Your task to perform on an android device: turn off wifi Image 0: 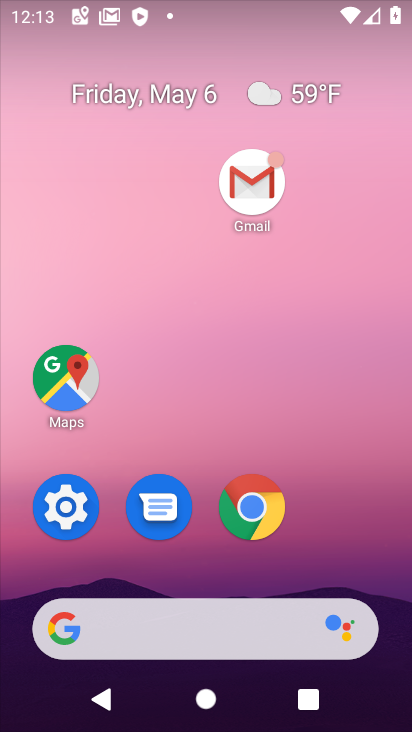
Step 0: drag from (337, 479) to (344, 40)
Your task to perform on an android device: turn off wifi Image 1: 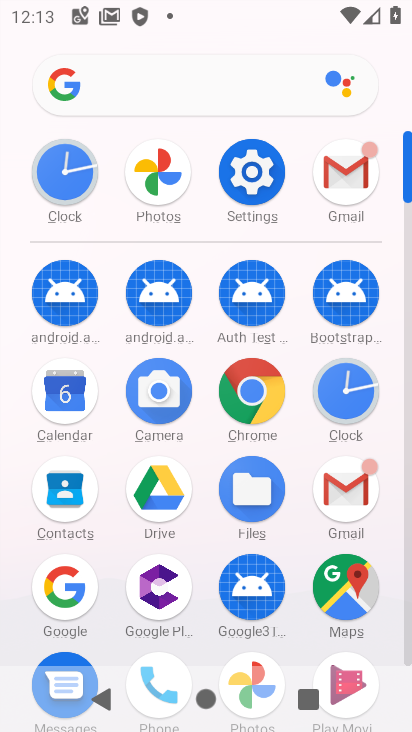
Step 1: click (254, 179)
Your task to perform on an android device: turn off wifi Image 2: 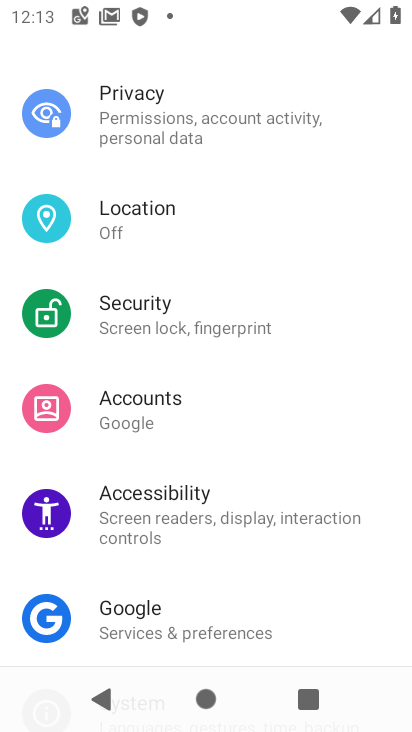
Step 2: drag from (226, 210) to (253, 702)
Your task to perform on an android device: turn off wifi Image 3: 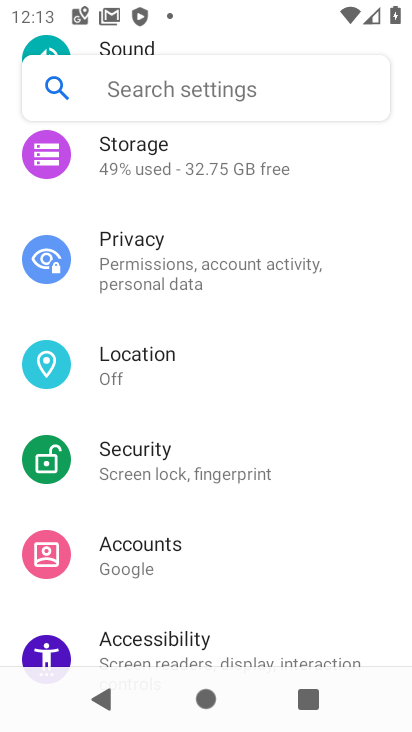
Step 3: drag from (258, 209) to (275, 543)
Your task to perform on an android device: turn off wifi Image 4: 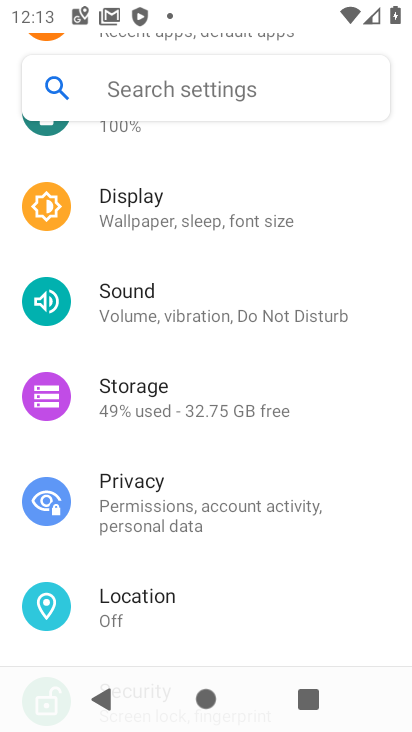
Step 4: drag from (216, 182) to (256, 630)
Your task to perform on an android device: turn off wifi Image 5: 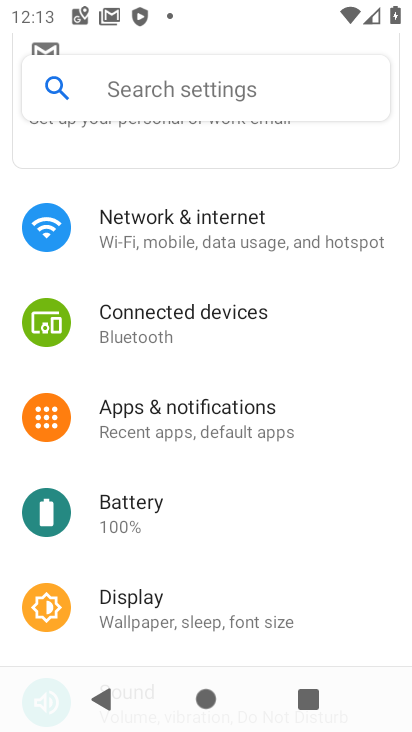
Step 5: drag from (283, 324) to (284, 583)
Your task to perform on an android device: turn off wifi Image 6: 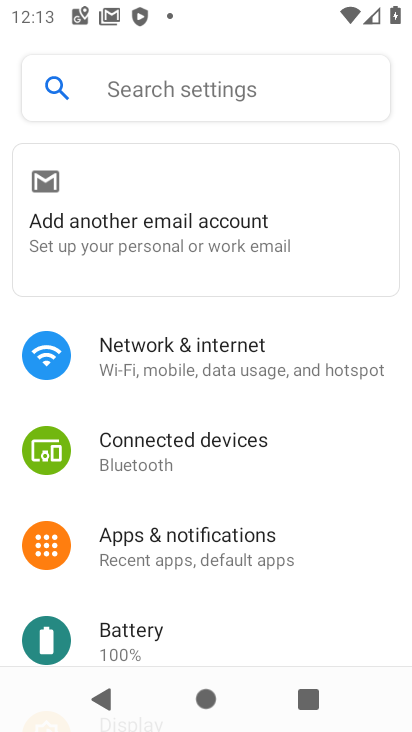
Step 6: click (185, 349)
Your task to perform on an android device: turn off wifi Image 7: 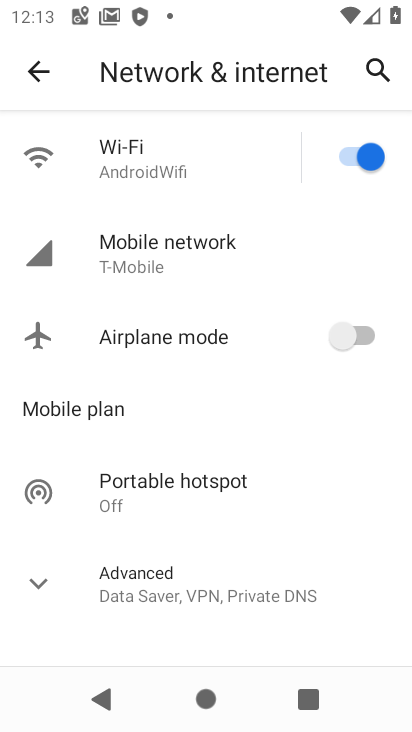
Step 7: click (372, 167)
Your task to perform on an android device: turn off wifi Image 8: 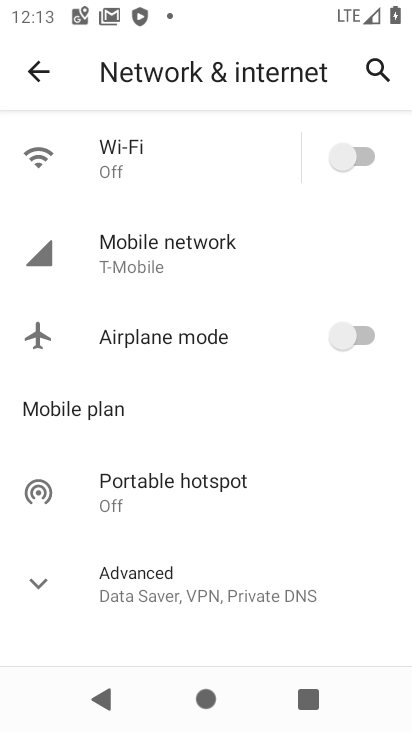
Step 8: task complete